Your task to perform on an android device: Open Google Chrome Image 0: 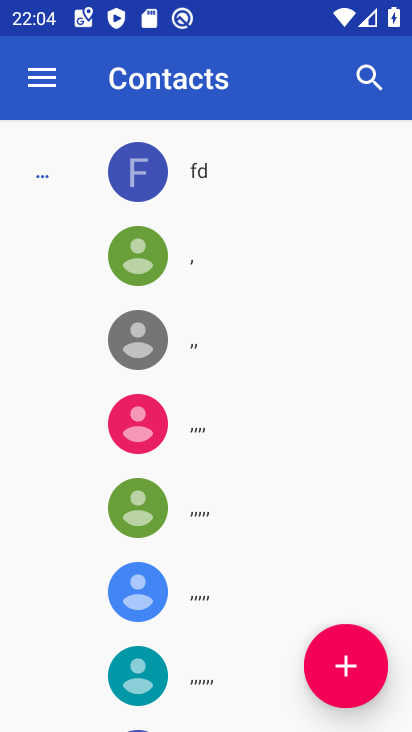
Step 0: press home button
Your task to perform on an android device: Open Google Chrome Image 1: 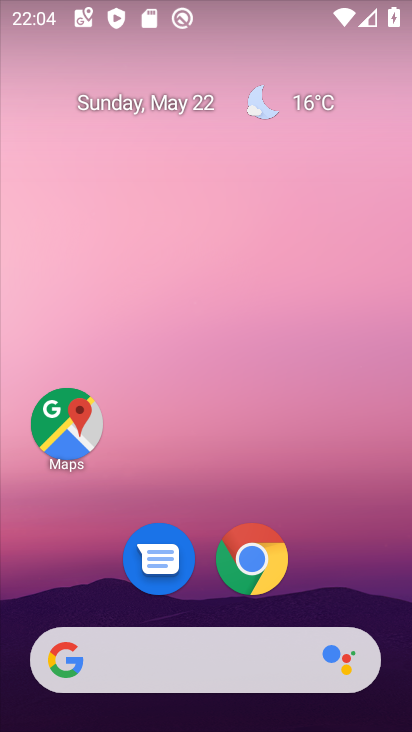
Step 1: drag from (277, 630) to (201, 201)
Your task to perform on an android device: Open Google Chrome Image 2: 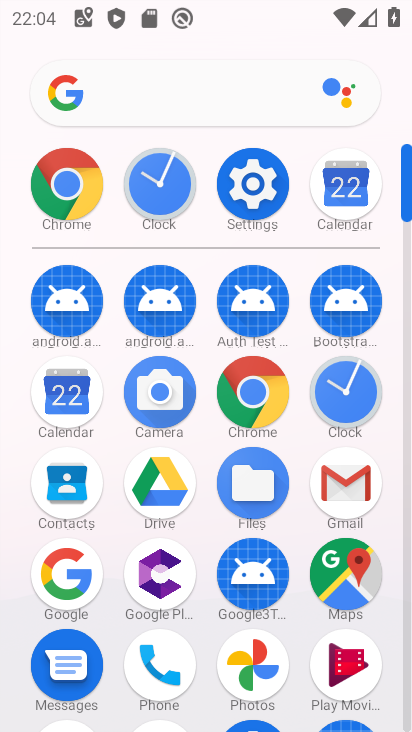
Step 2: click (88, 204)
Your task to perform on an android device: Open Google Chrome Image 3: 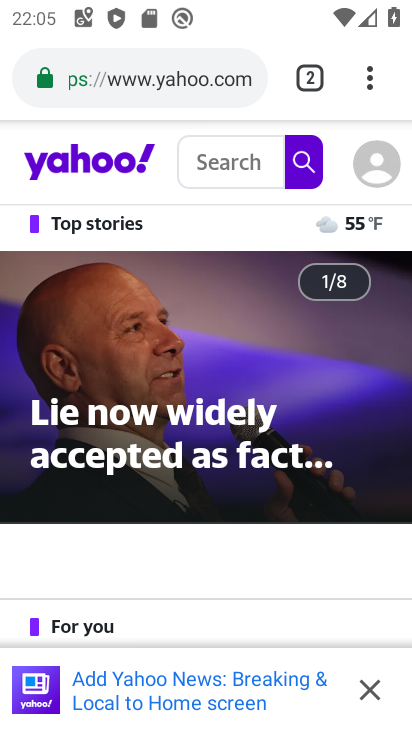
Step 3: task complete